Your task to perform on an android device: Open Youtube and go to "Your channel" Image 0: 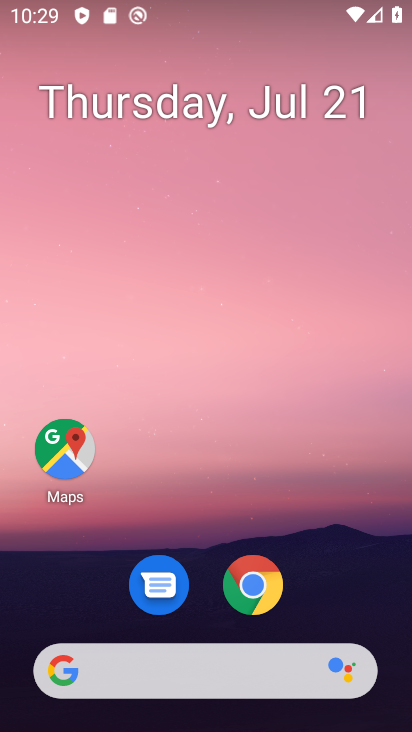
Step 0: drag from (256, 672) to (328, 143)
Your task to perform on an android device: Open Youtube and go to "Your channel" Image 1: 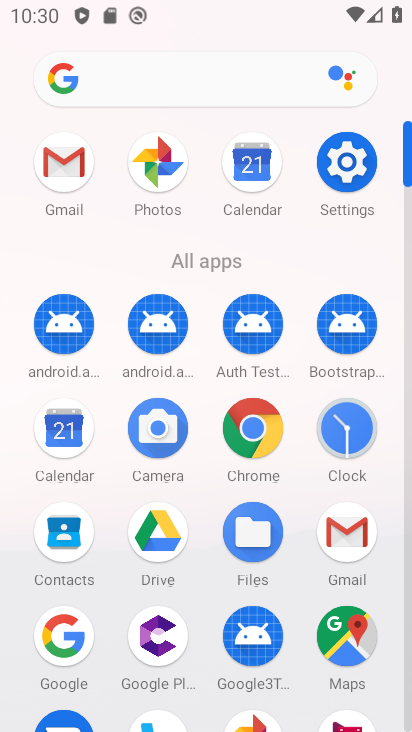
Step 1: drag from (251, 407) to (306, 208)
Your task to perform on an android device: Open Youtube and go to "Your channel" Image 2: 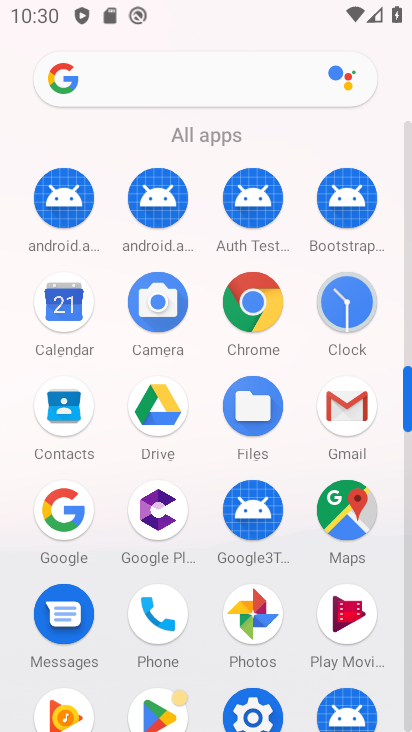
Step 2: drag from (233, 529) to (341, 214)
Your task to perform on an android device: Open Youtube and go to "Your channel" Image 3: 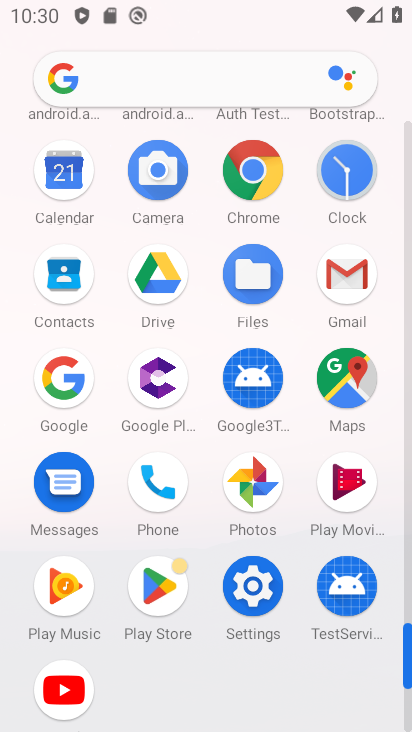
Step 3: drag from (208, 577) to (287, 178)
Your task to perform on an android device: Open Youtube and go to "Your channel" Image 4: 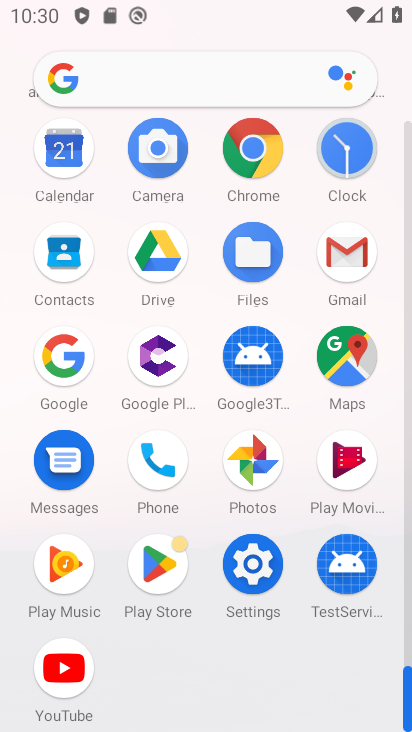
Step 4: click (61, 673)
Your task to perform on an android device: Open Youtube and go to "Your channel" Image 5: 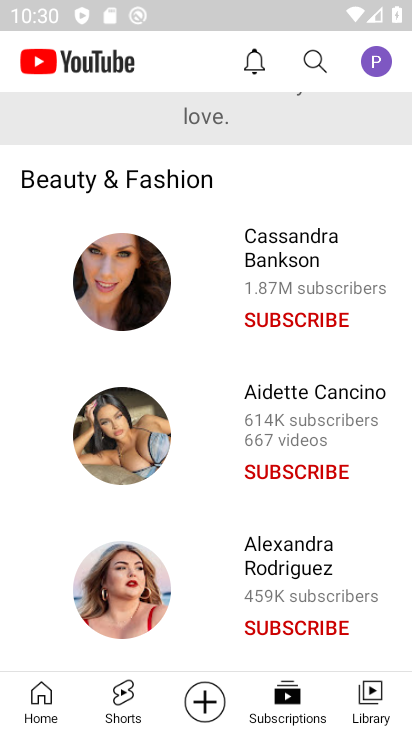
Step 5: click (47, 702)
Your task to perform on an android device: Open Youtube and go to "Your channel" Image 6: 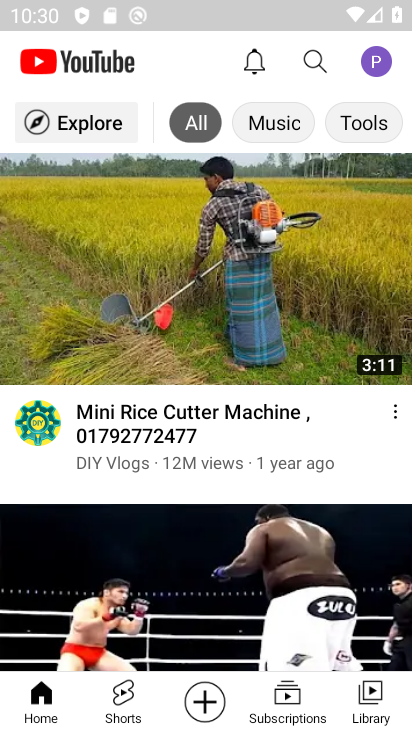
Step 6: click (380, 61)
Your task to perform on an android device: Open Youtube and go to "Your channel" Image 7: 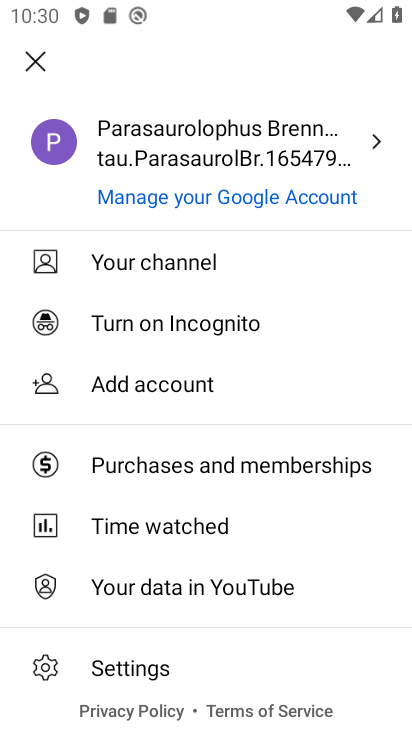
Step 7: click (170, 255)
Your task to perform on an android device: Open Youtube and go to "Your channel" Image 8: 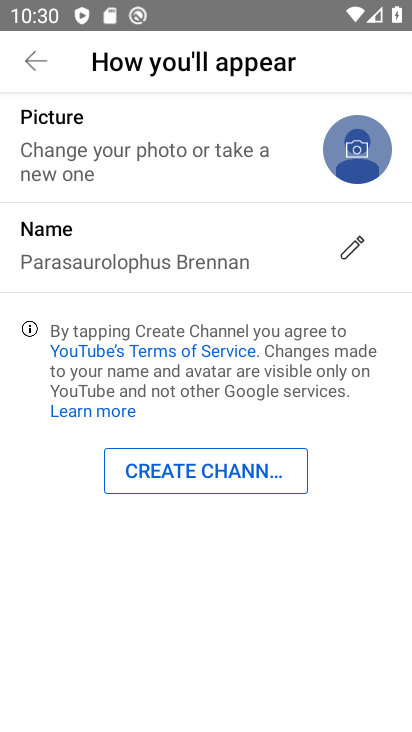
Step 8: task complete